Your task to perform on an android device: Open the web browser Image 0: 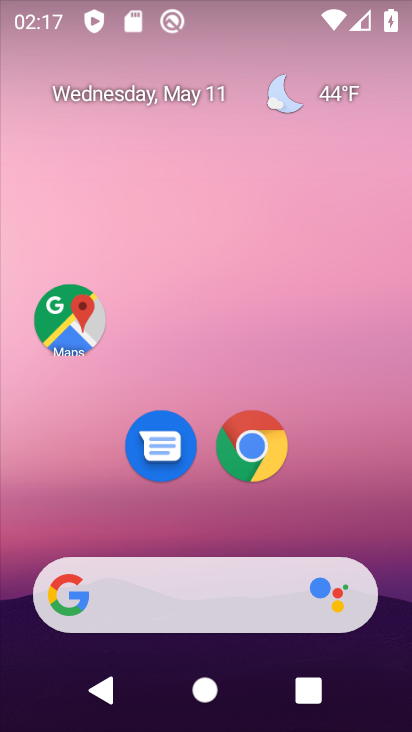
Step 0: click (263, 457)
Your task to perform on an android device: Open the web browser Image 1: 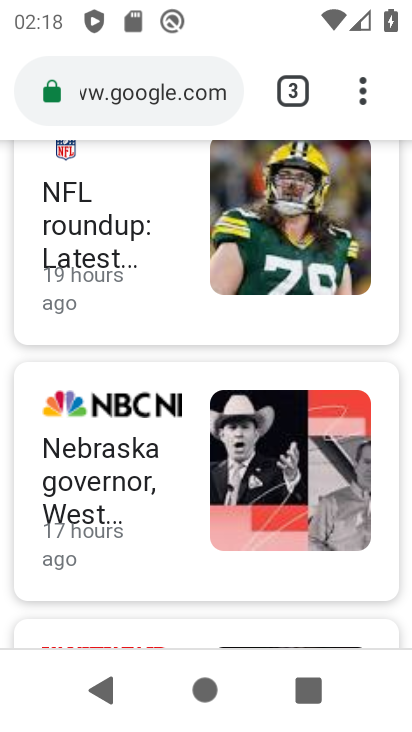
Step 1: task complete